Your task to perform on an android device: toggle javascript in the chrome app Image 0: 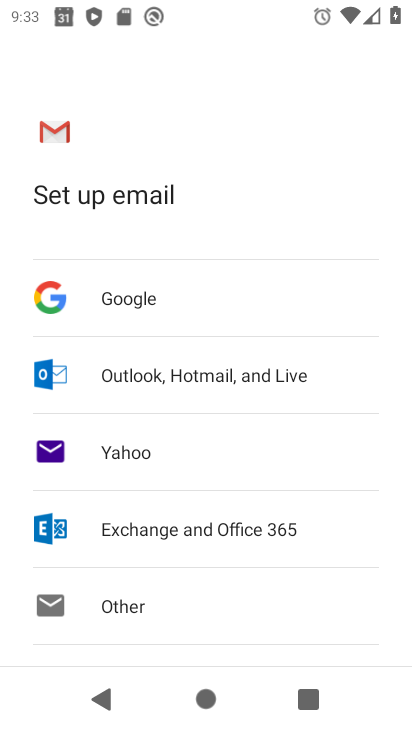
Step 0: press home button
Your task to perform on an android device: toggle javascript in the chrome app Image 1: 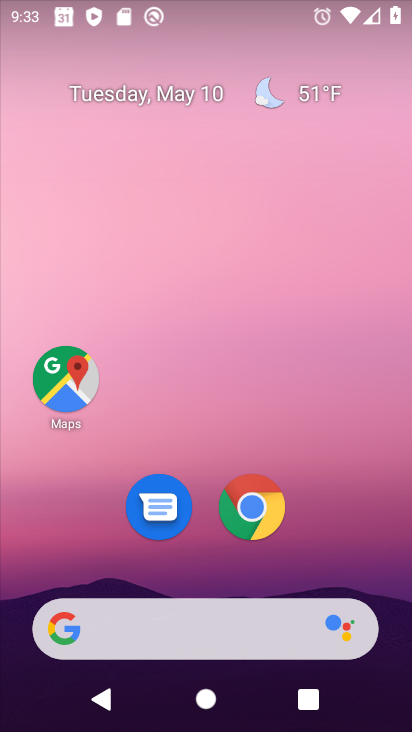
Step 1: click (250, 497)
Your task to perform on an android device: toggle javascript in the chrome app Image 2: 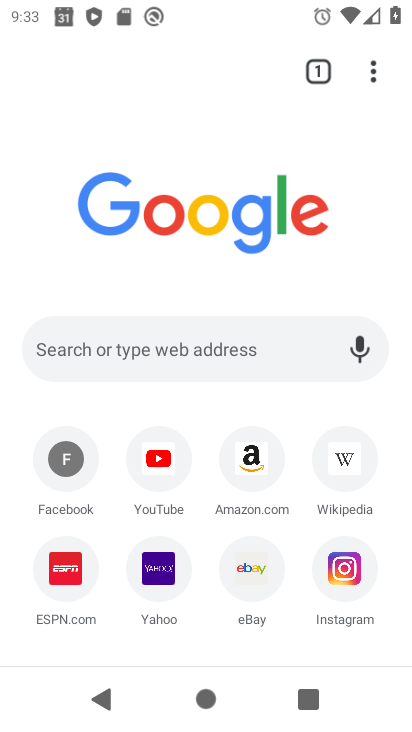
Step 2: click (367, 68)
Your task to perform on an android device: toggle javascript in the chrome app Image 3: 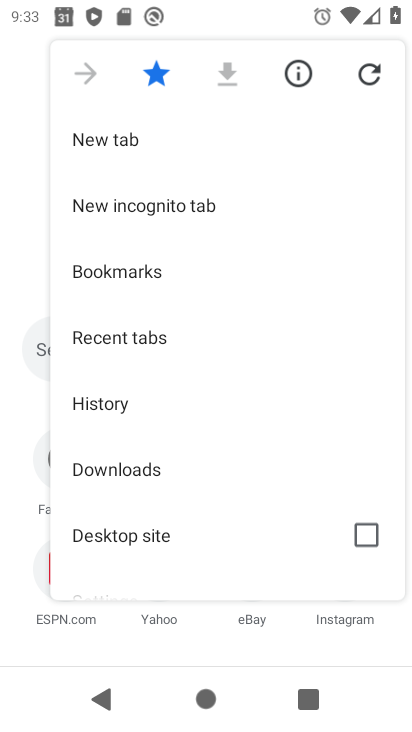
Step 3: drag from (163, 459) to (188, 159)
Your task to perform on an android device: toggle javascript in the chrome app Image 4: 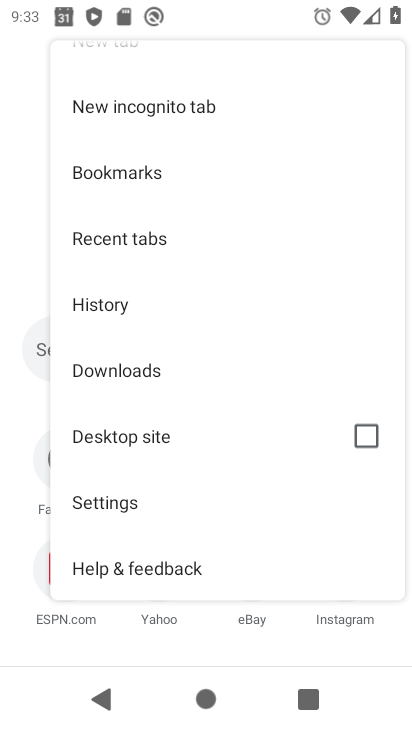
Step 4: click (170, 501)
Your task to perform on an android device: toggle javascript in the chrome app Image 5: 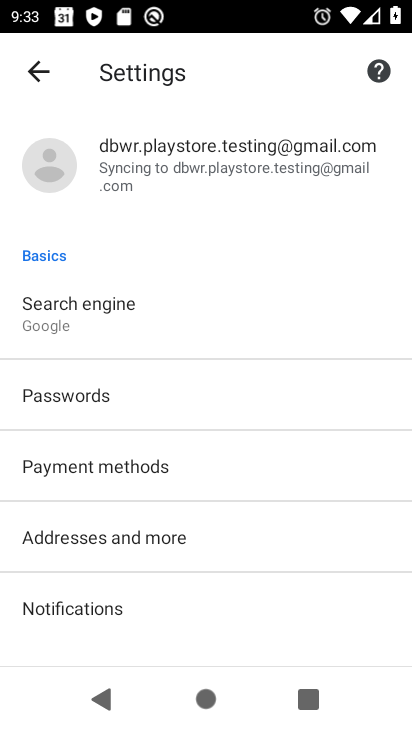
Step 5: drag from (170, 633) to (227, 186)
Your task to perform on an android device: toggle javascript in the chrome app Image 6: 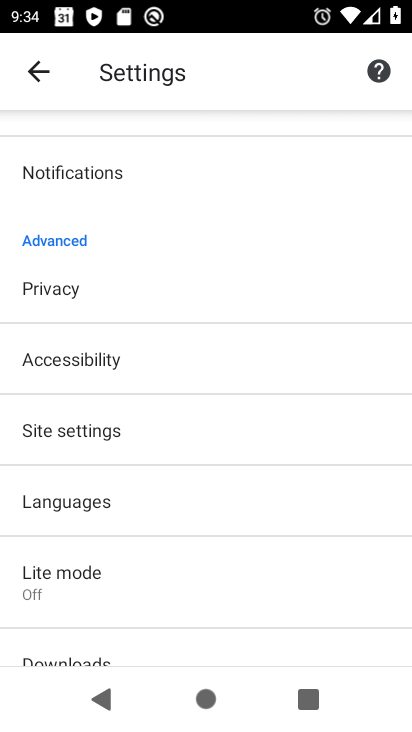
Step 6: drag from (134, 582) to (106, 267)
Your task to perform on an android device: toggle javascript in the chrome app Image 7: 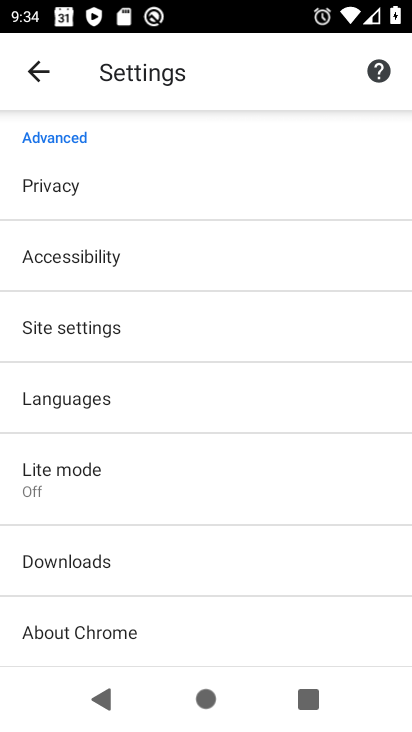
Step 7: click (172, 337)
Your task to perform on an android device: toggle javascript in the chrome app Image 8: 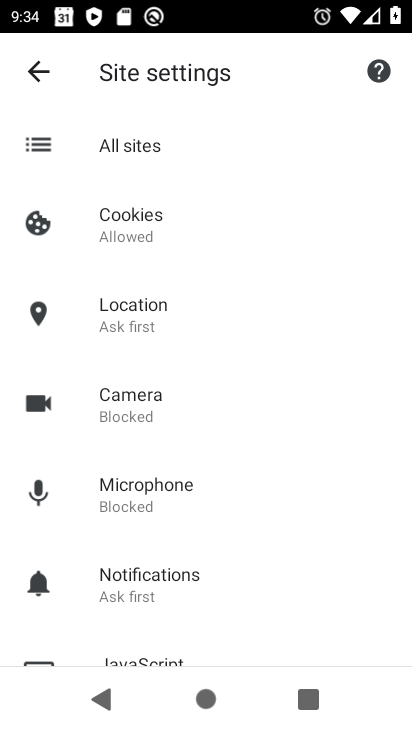
Step 8: drag from (160, 574) to (184, 226)
Your task to perform on an android device: toggle javascript in the chrome app Image 9: 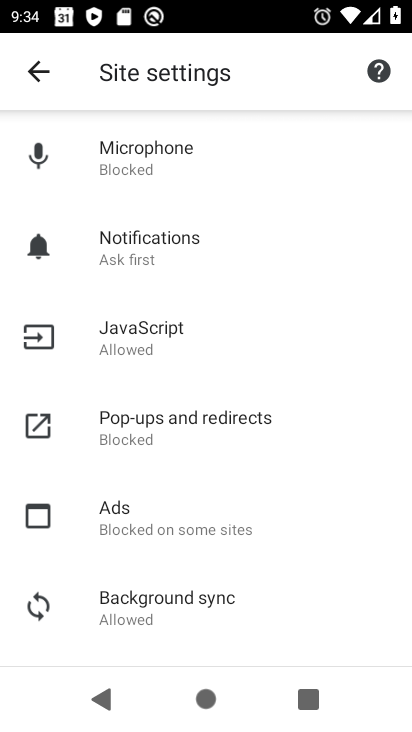
Step 9: click (139, 361)
Your task to perform on an android device: toggle javascript in the chrome app Image 10: 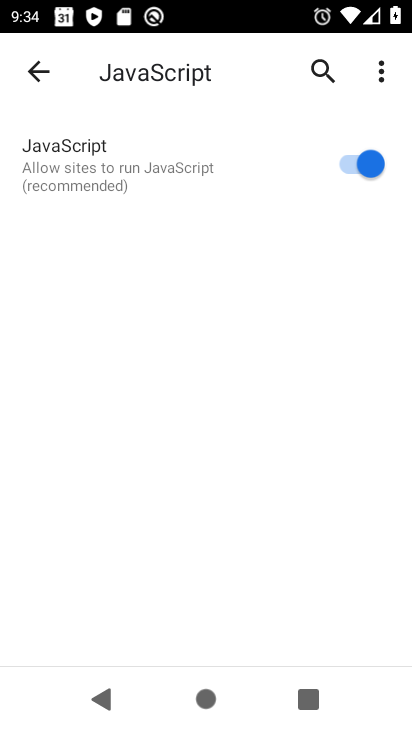
Step 10: task complete